Your task to perform on an android device: open app "Move to iOS" (install if not already installed), go to login, and select forgot password Image 0: 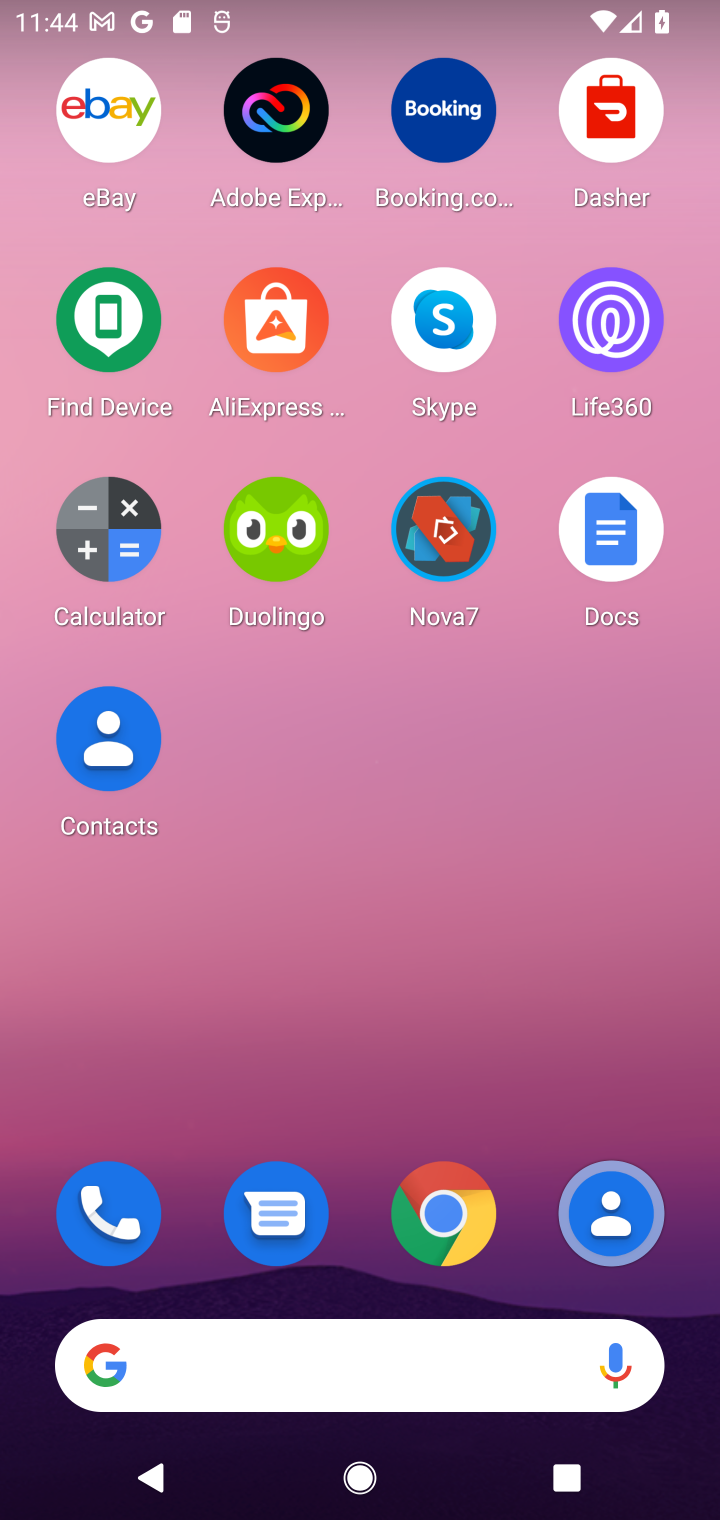
Step 0: press home button
Your task to perform on an android device: open app "Move to iOS" (install if not already installed), go to login, and select forgot password Image 1: 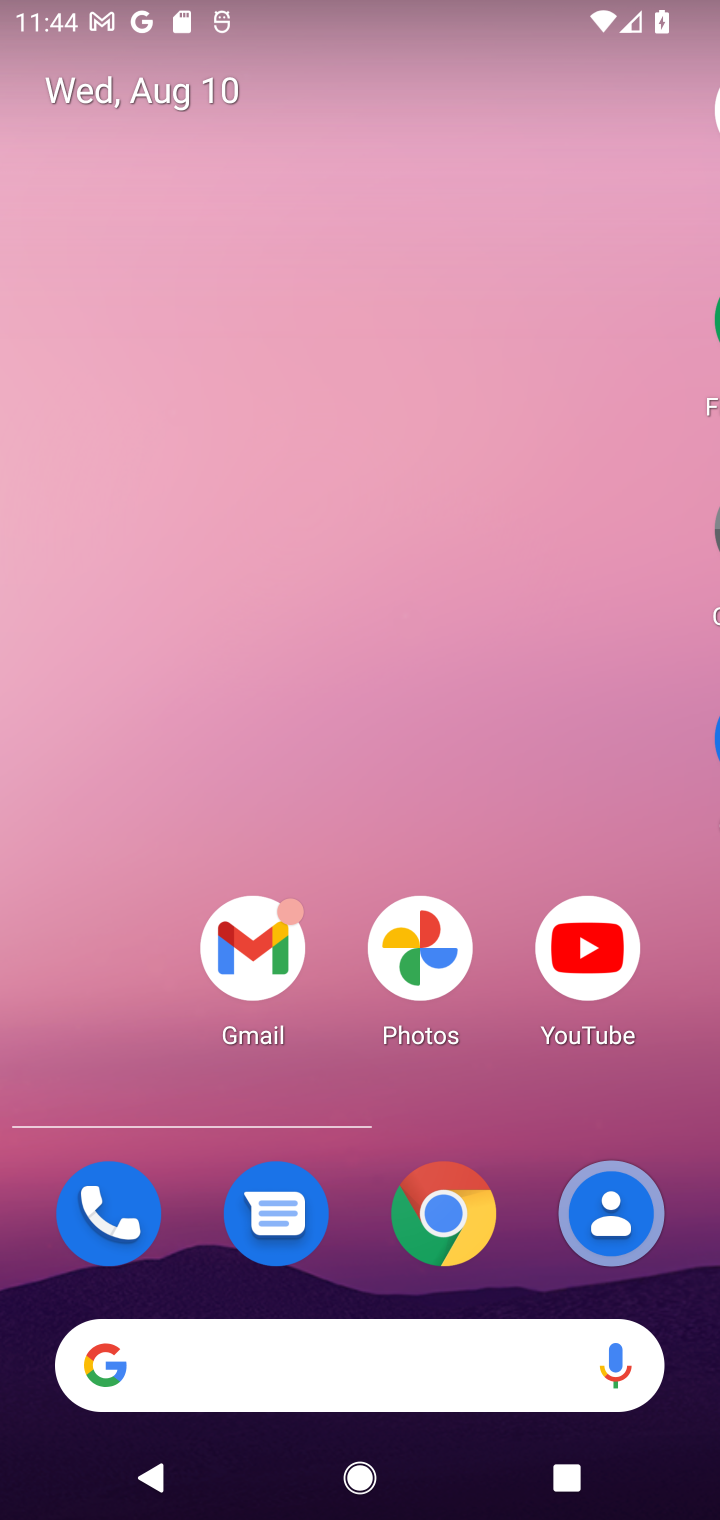
Step 1: drag from (220, 1347) to (359, 144)
Your task to perform on an android device: open app "Move to iOS" (install if not already installed), go to login, and select forgot password Image 2: 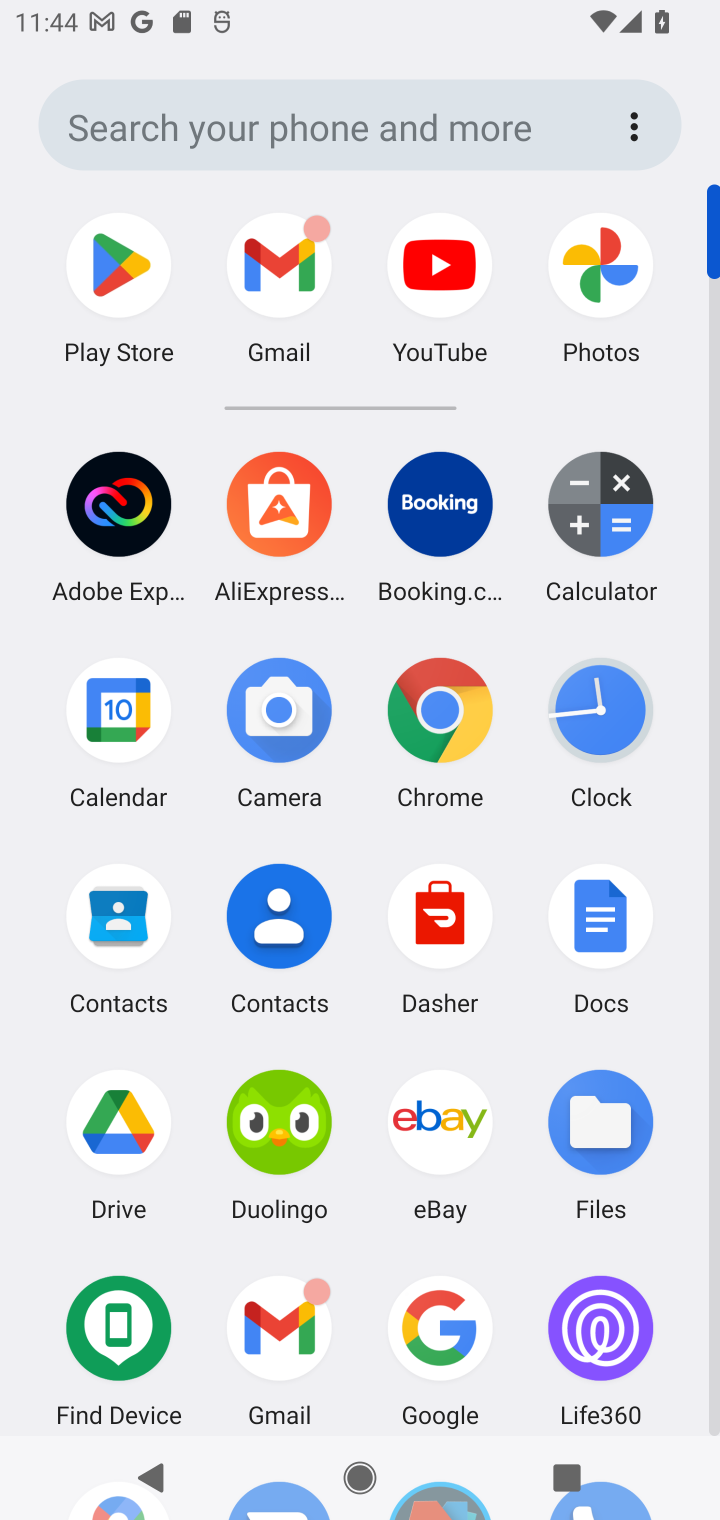
Step 2: click (100, 275)
Your task to perform on an android device: open app "Move to iOS" (install if not already installed), go to login, and select forgot password Image 3: 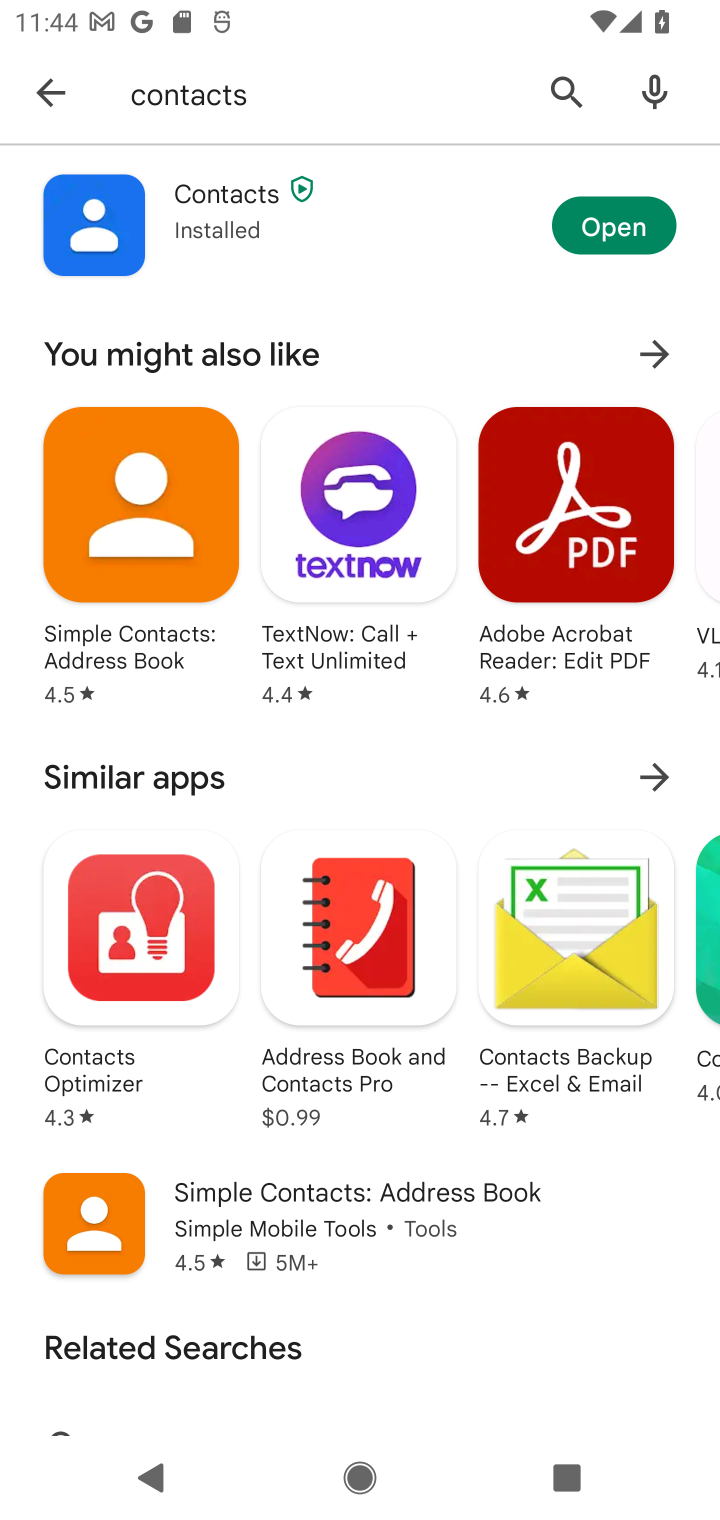
Step 3: press back button
Your task to perform on an android device: open app "Move to iOS" (install if not already installed), go to login, and select forgot password Image 4: 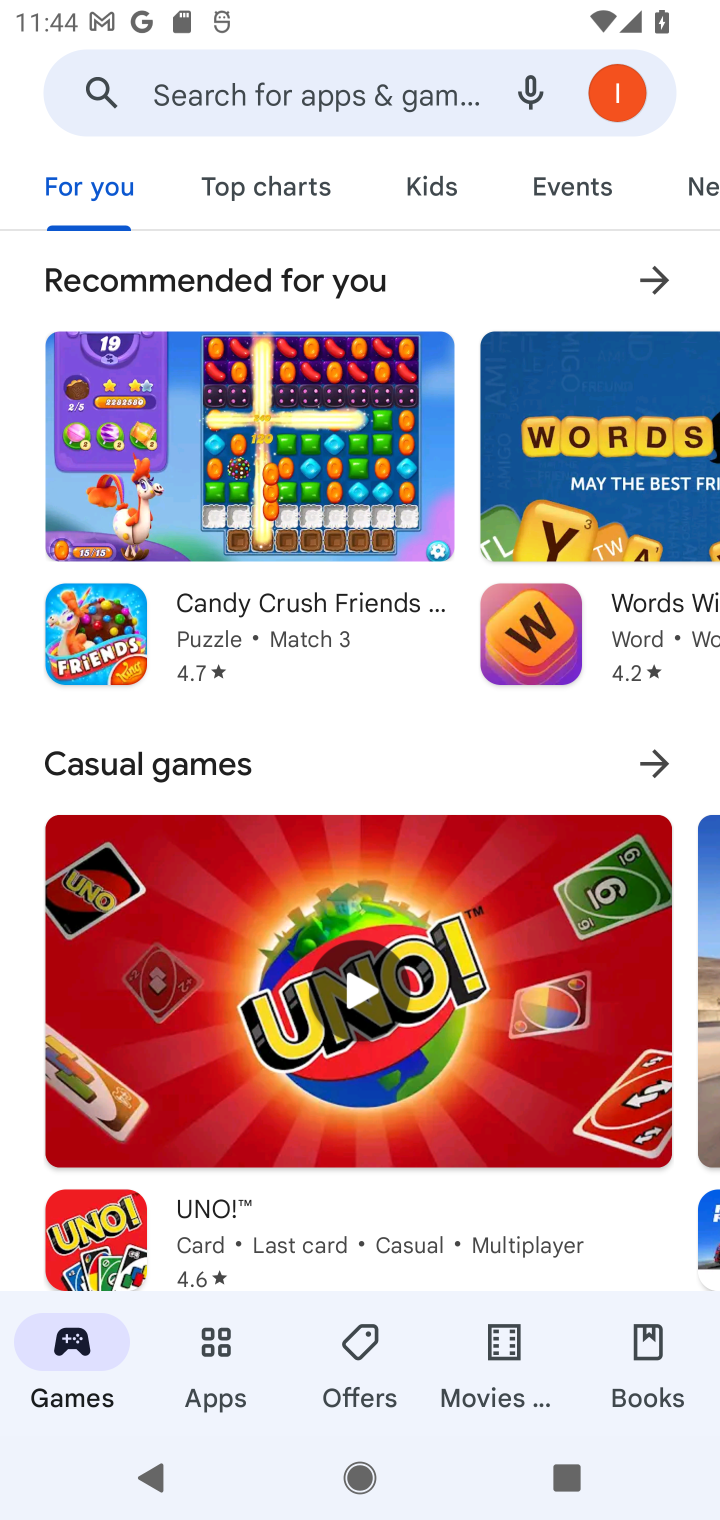
Step 4: click (346, 102)
Your task to perform on an android device: open app "Move to iOS" (install if not already installed), go to login, and select forgot password Image 5: 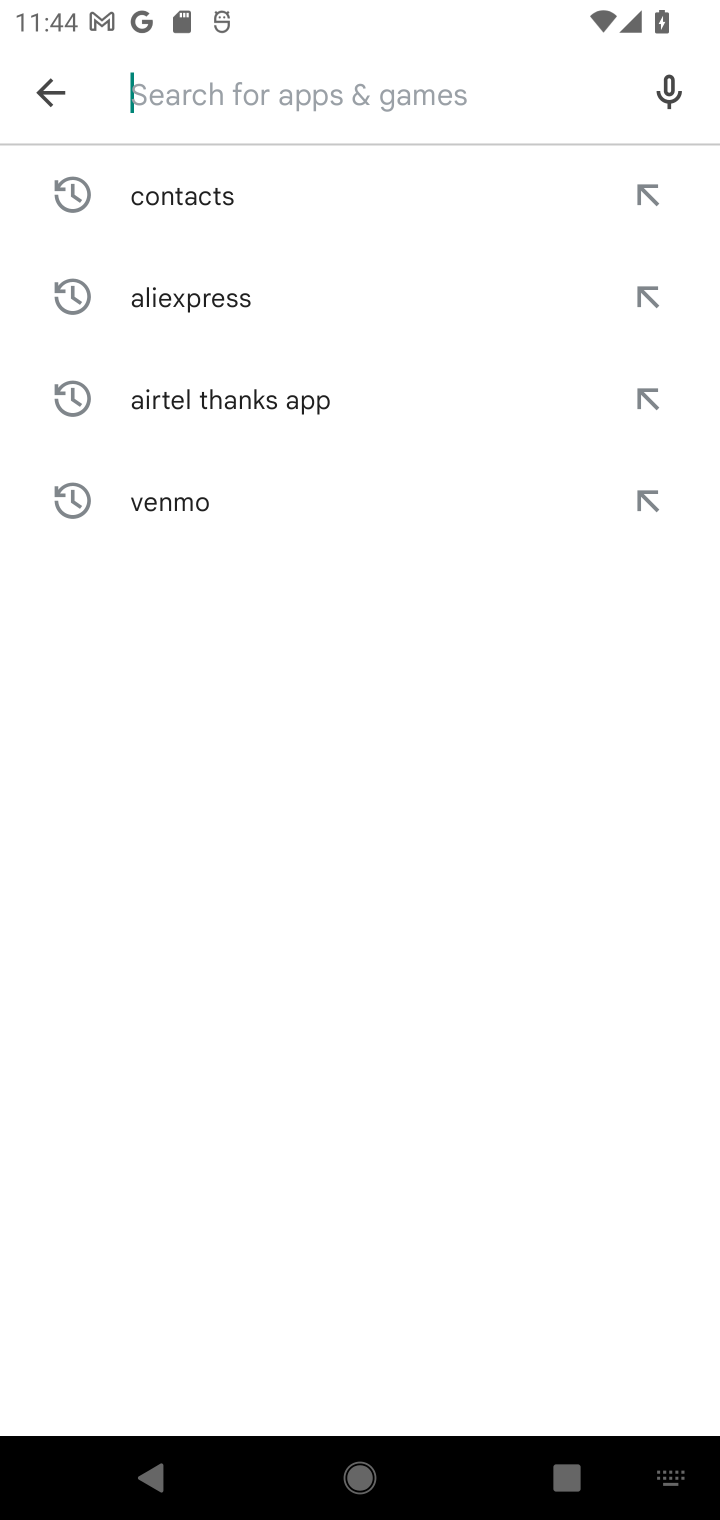
Step 5: type "Move to iOS"
Your task to perform on an android device: open app "Move to iOS" (install if not already installed), go to login, and select forgot password Image 6: 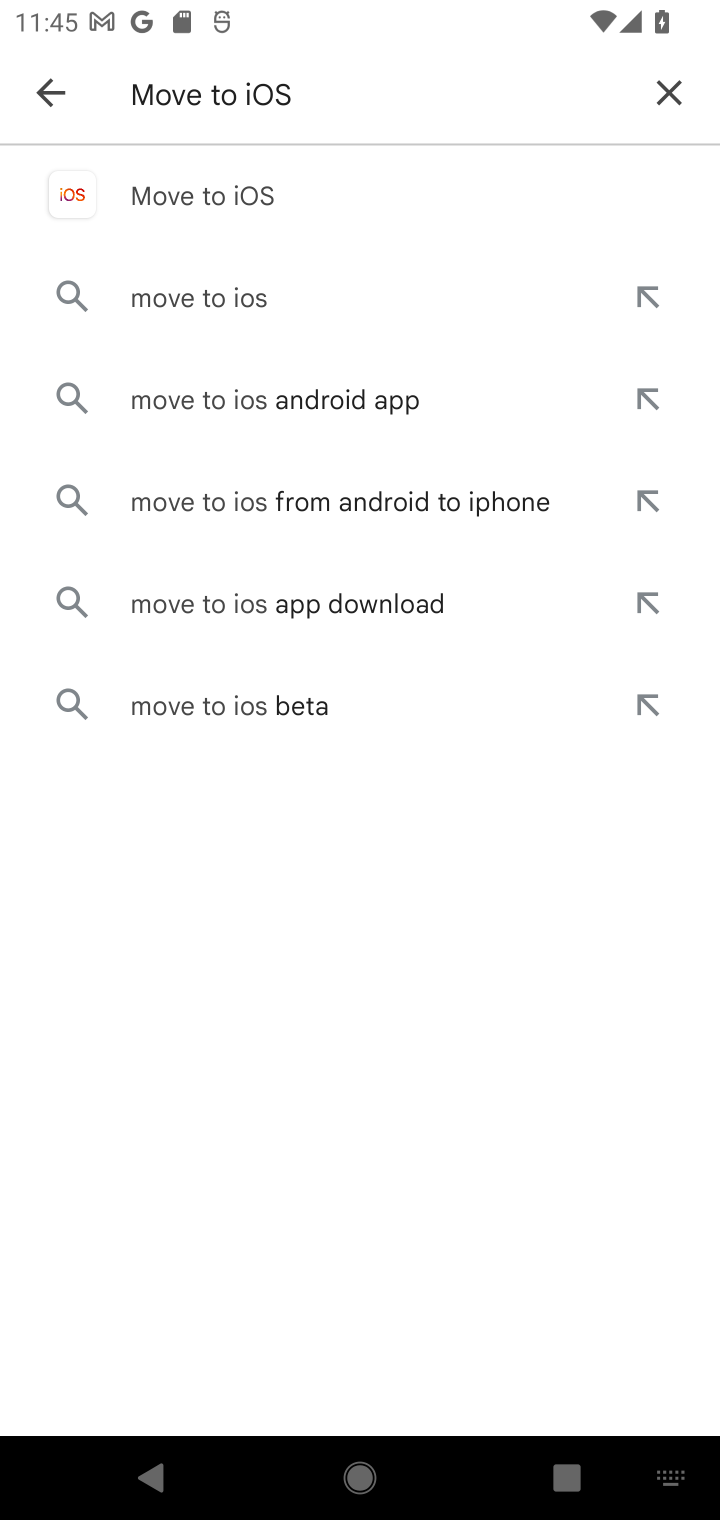
Step 6: click (166, 206)
Your task to perform on an android device: open app "Move to iOS" (install if not already installed), go to login, and select forgot password Image 7: 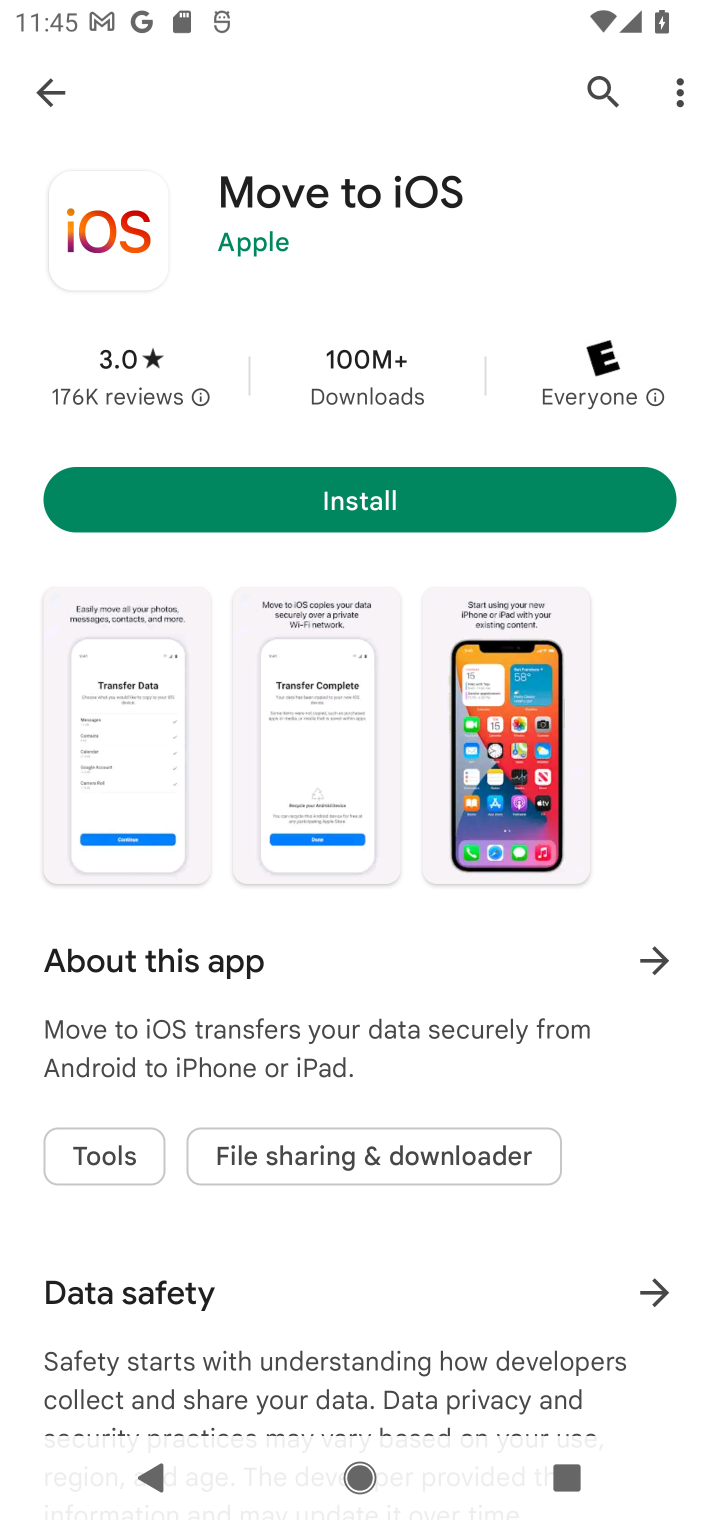
Step 7: click (368, 515)
Your task to perform on an android device: open app "Move to iOS" (install if not already installed), go to login, and select forgot password Image 8: 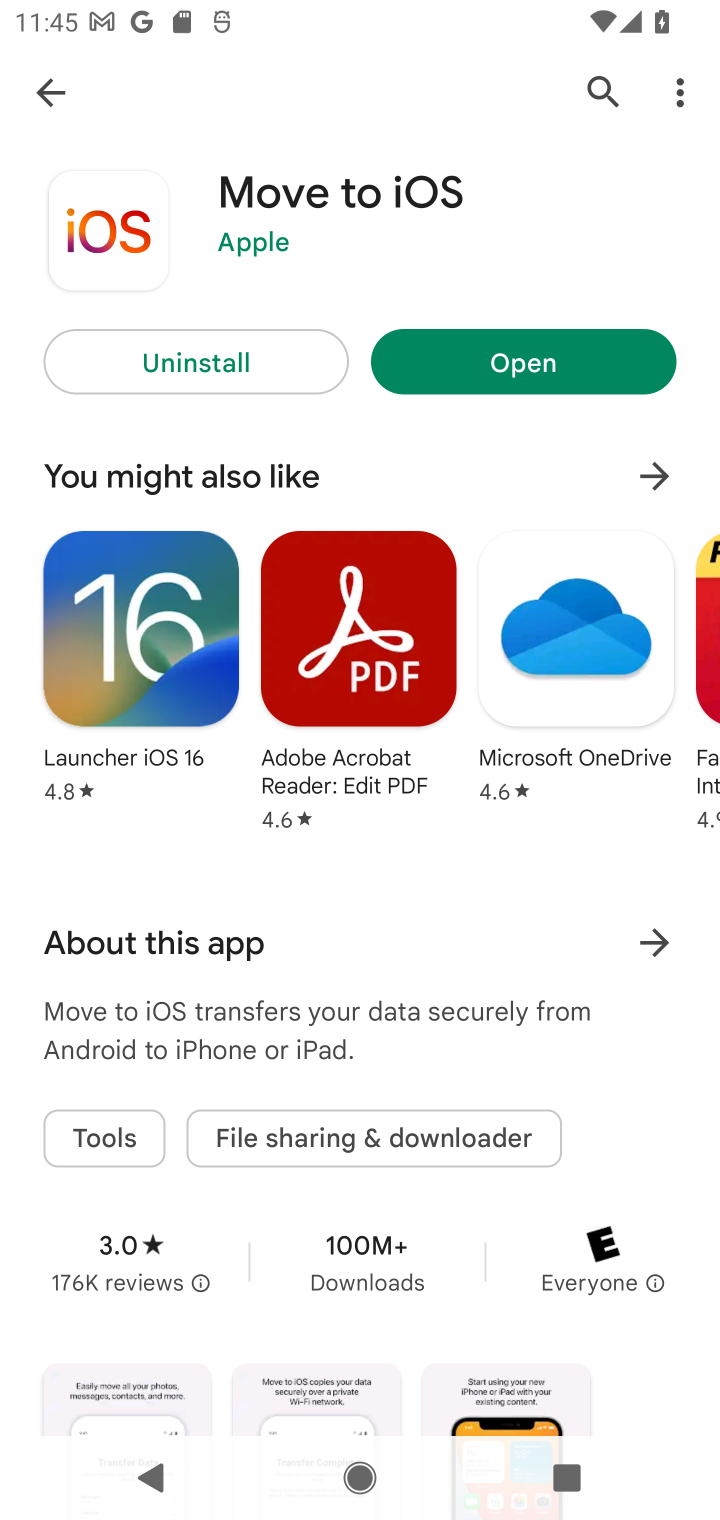
Step 8: click (484, 375)
Your task to perform on an android device: open app "Move to iOS" (install if not already installed), go to login, and select forgot password Image 9: 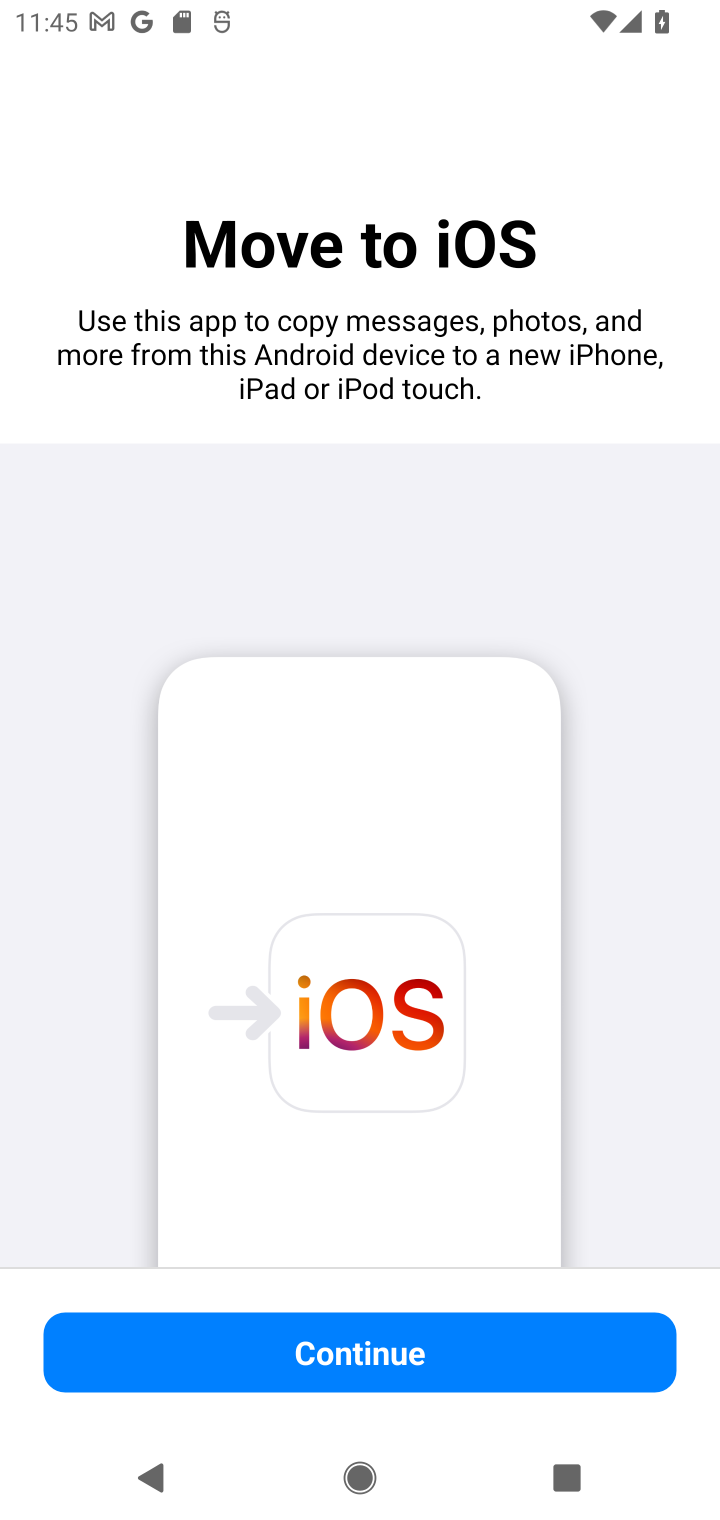
Step 9: click (372, 1365)
Your task to perform on an android device: open app "Move to iOS" (install if not already installed), go to login, and select forgot password Image 10: 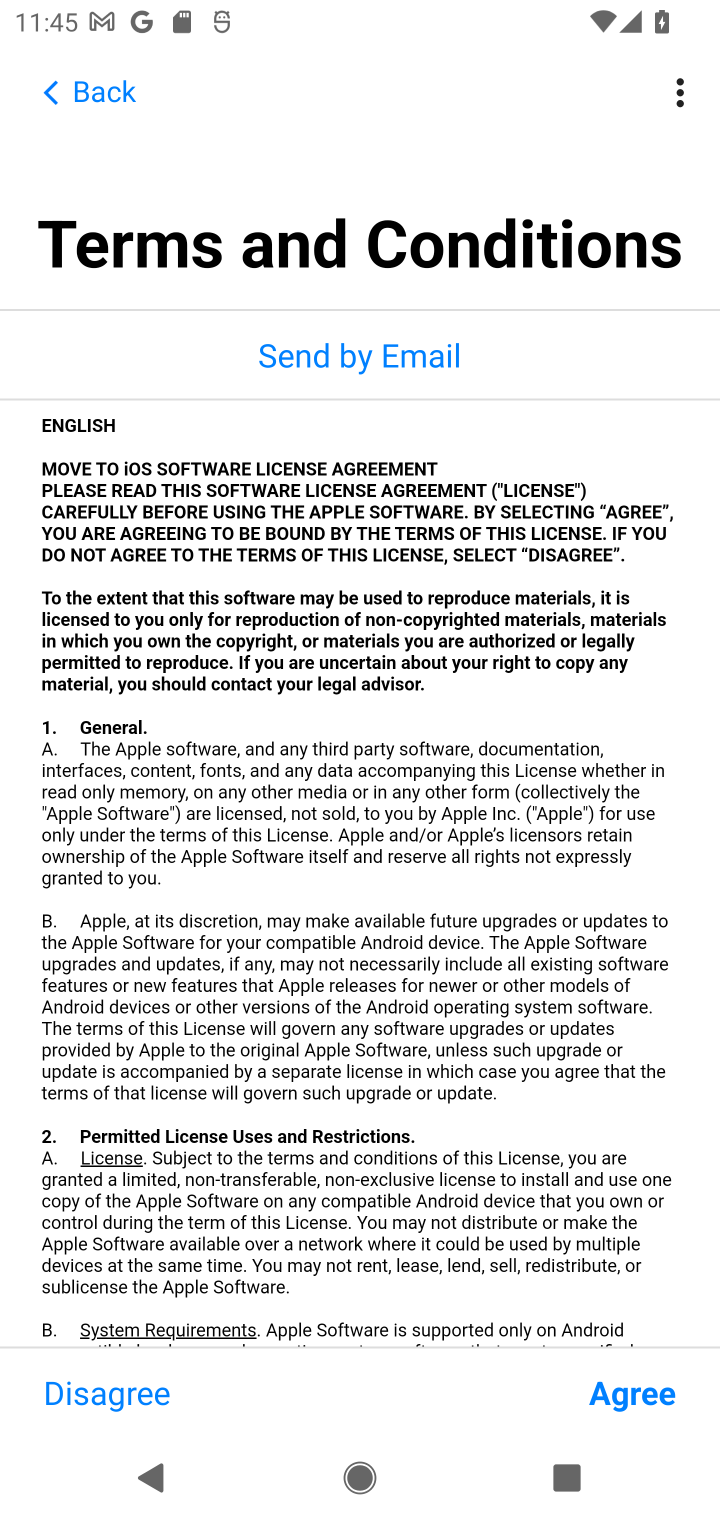
Step 10: click (624, 1390)
Your task to perform on an android device: open app "Move to iOS" (install if not already installed), go to login, and select forgot password Image 11: 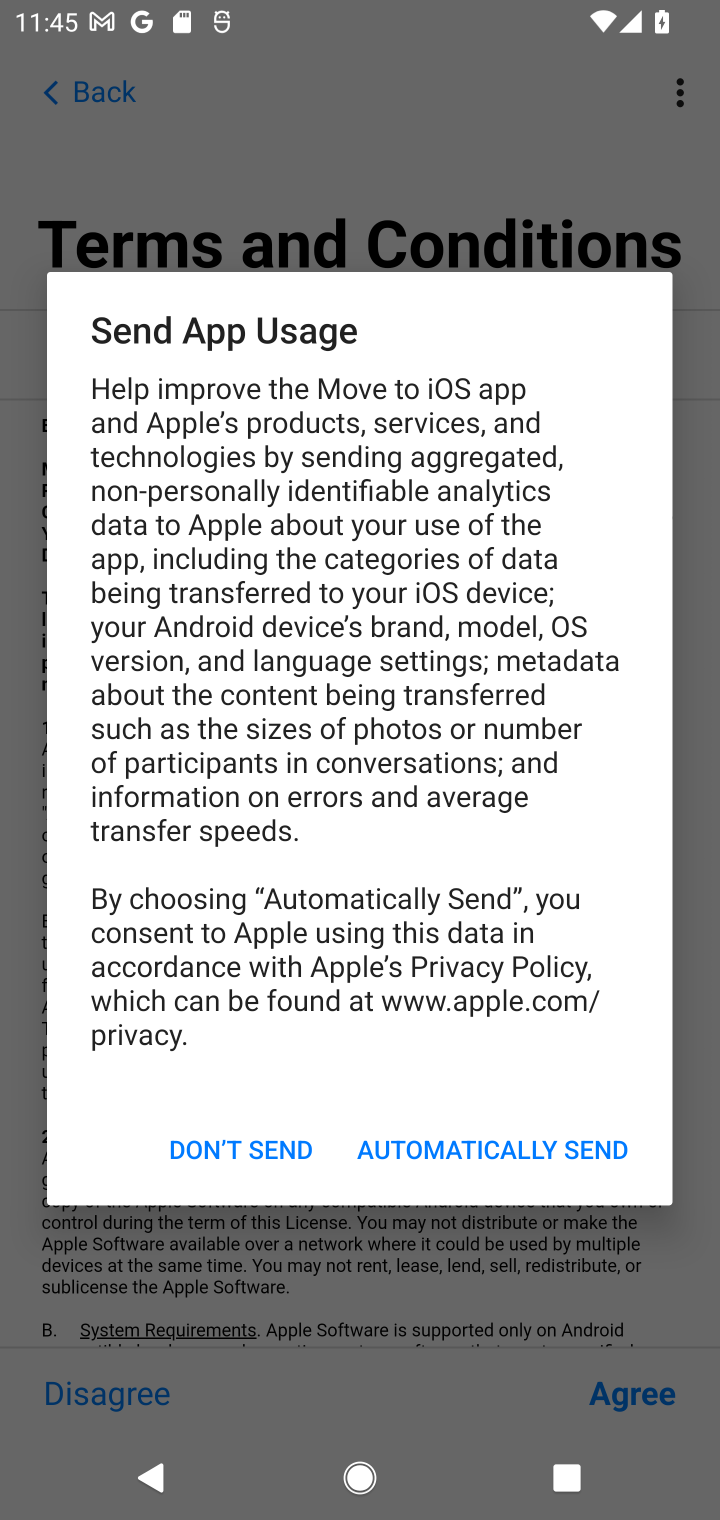
Step 11: click (495, 1158)
Your task to perform on an android device: open app "Move to iOS" (install if not already installed), go to login, and select forgot password Image 12: 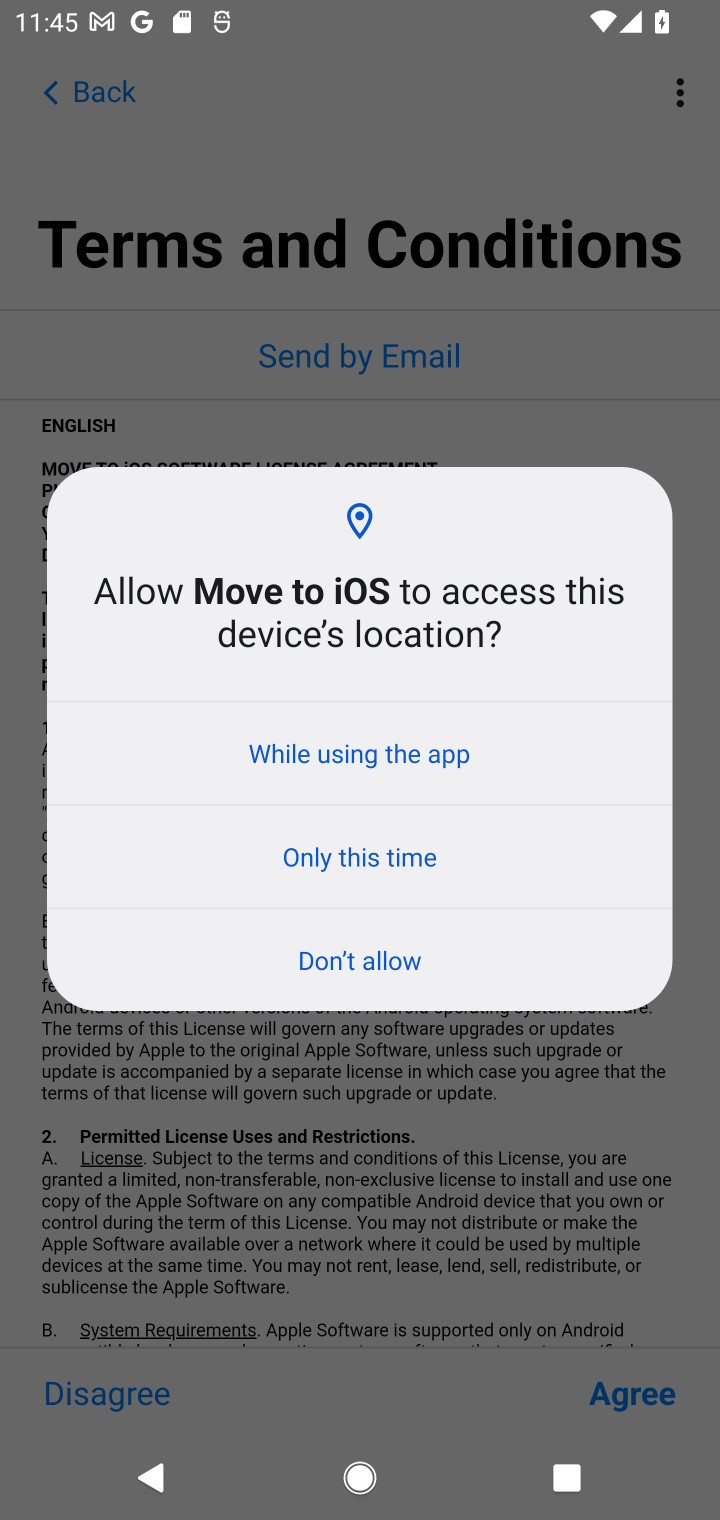
Step 12: click (392, 744)
Your task to perform on an android device: open app "Move to iOS" (install if not already installed), go to login, and select forgot password Image 13: 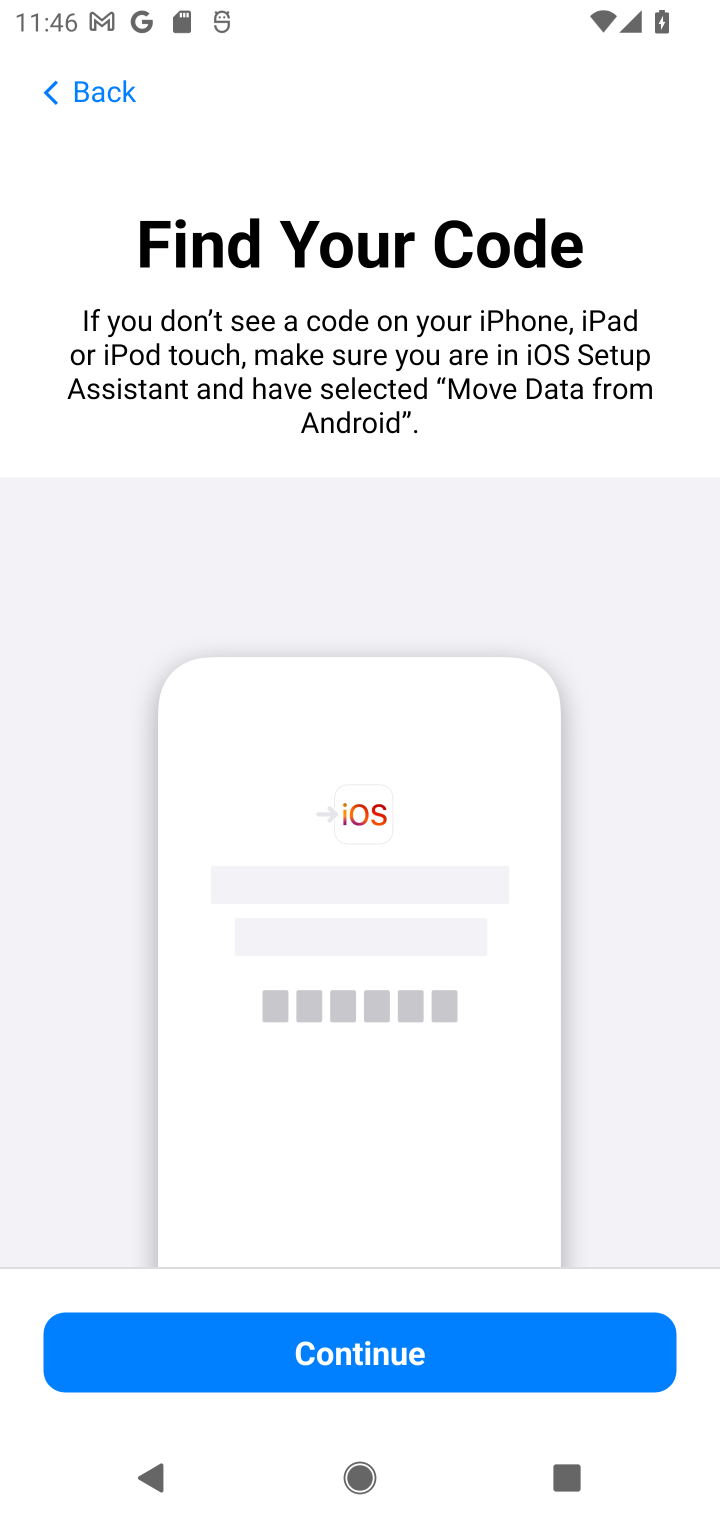
Step 13: click (355, 1351)
Your task to perform on an android device: open app "Move to iOS" (install if not already installed), go to login, and select forgot password Image 14: 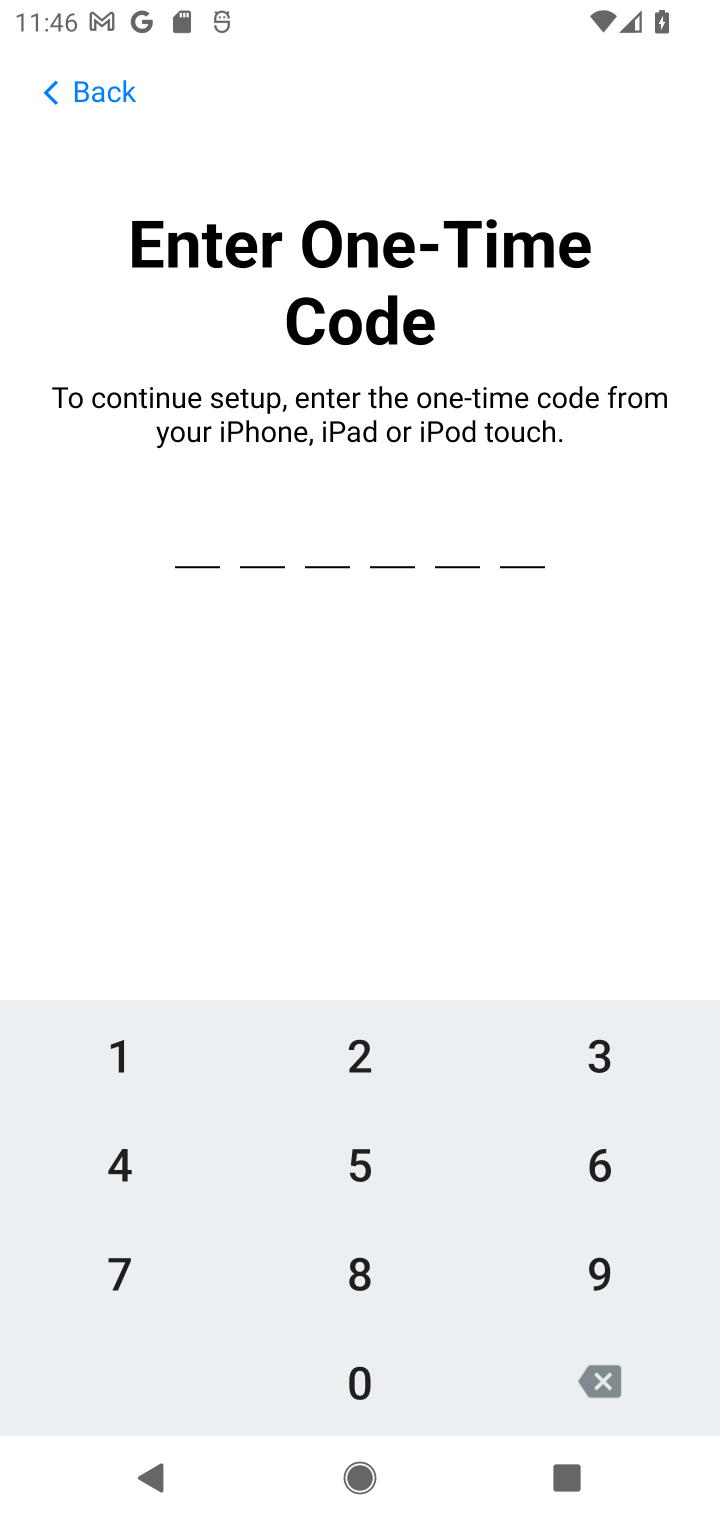
Step 14: type "123456"
Your task to perform on an android device: open app "Move to iOS" (install if not already installed), go to login, and select forgot password Image 15: 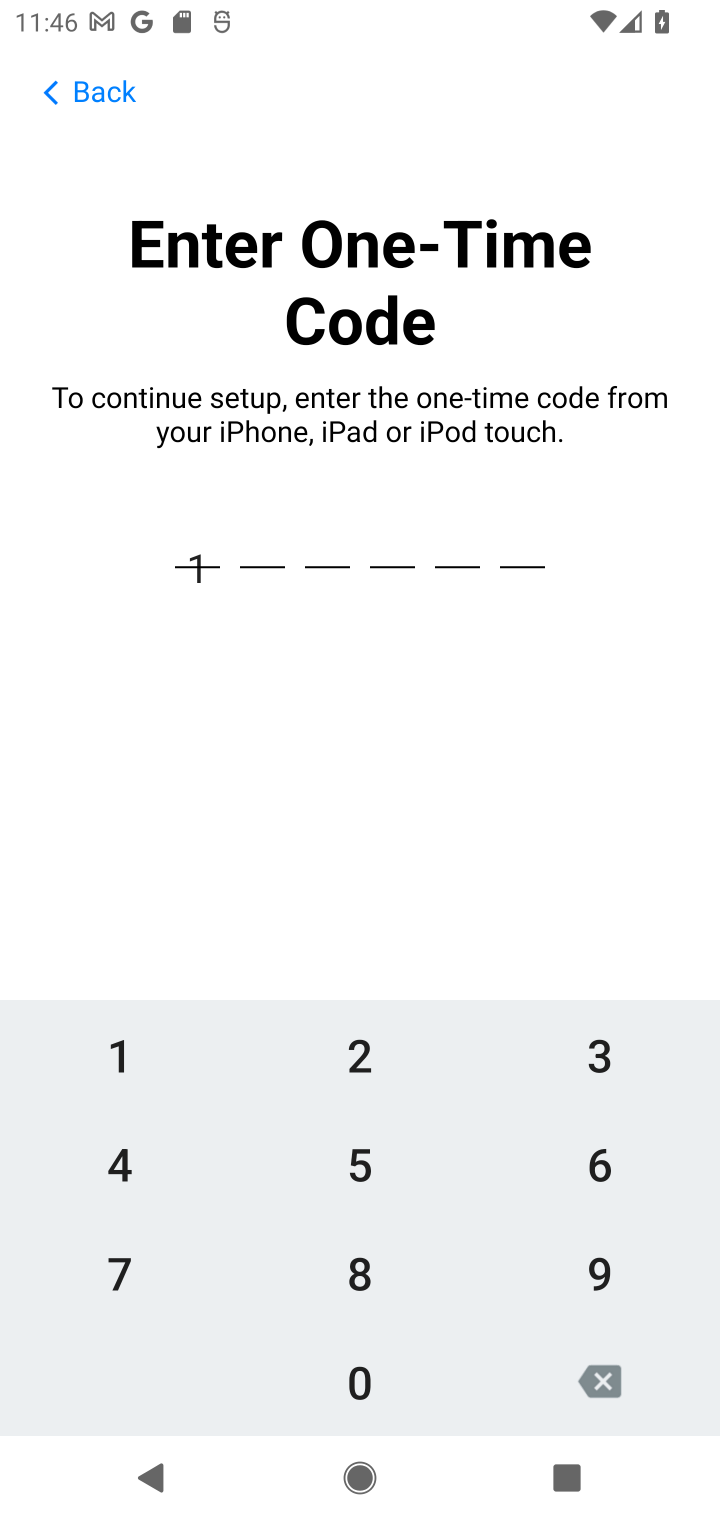
Step 15: type ""
Your task to perform on an android device: open app "Move to iOS" (install if not already installed), go to login, and select forgot password Image 16: 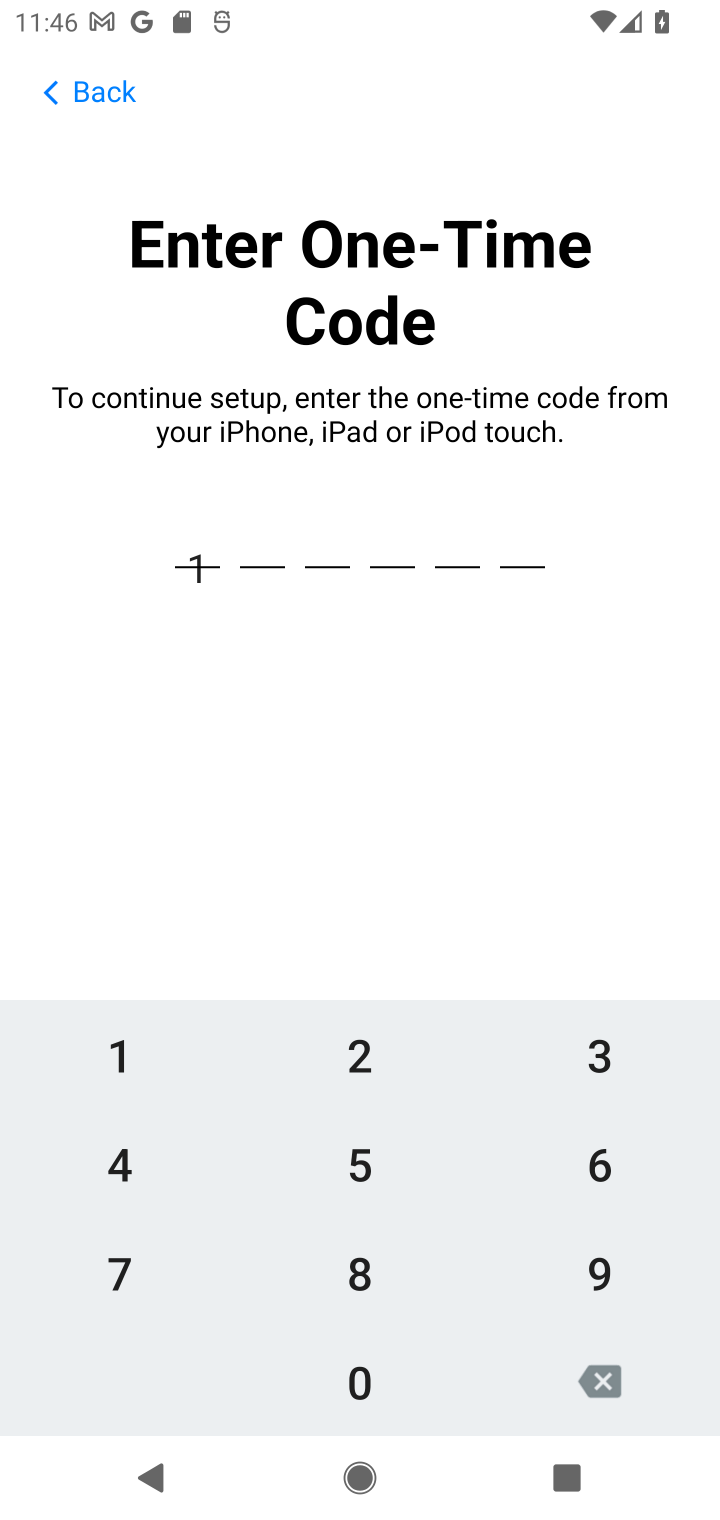
Step 16: click (360, 1046)
Your task to perform on an android device: open app "Move to iOS" (install if not already installed), go to login, and select forgot password Image 17: 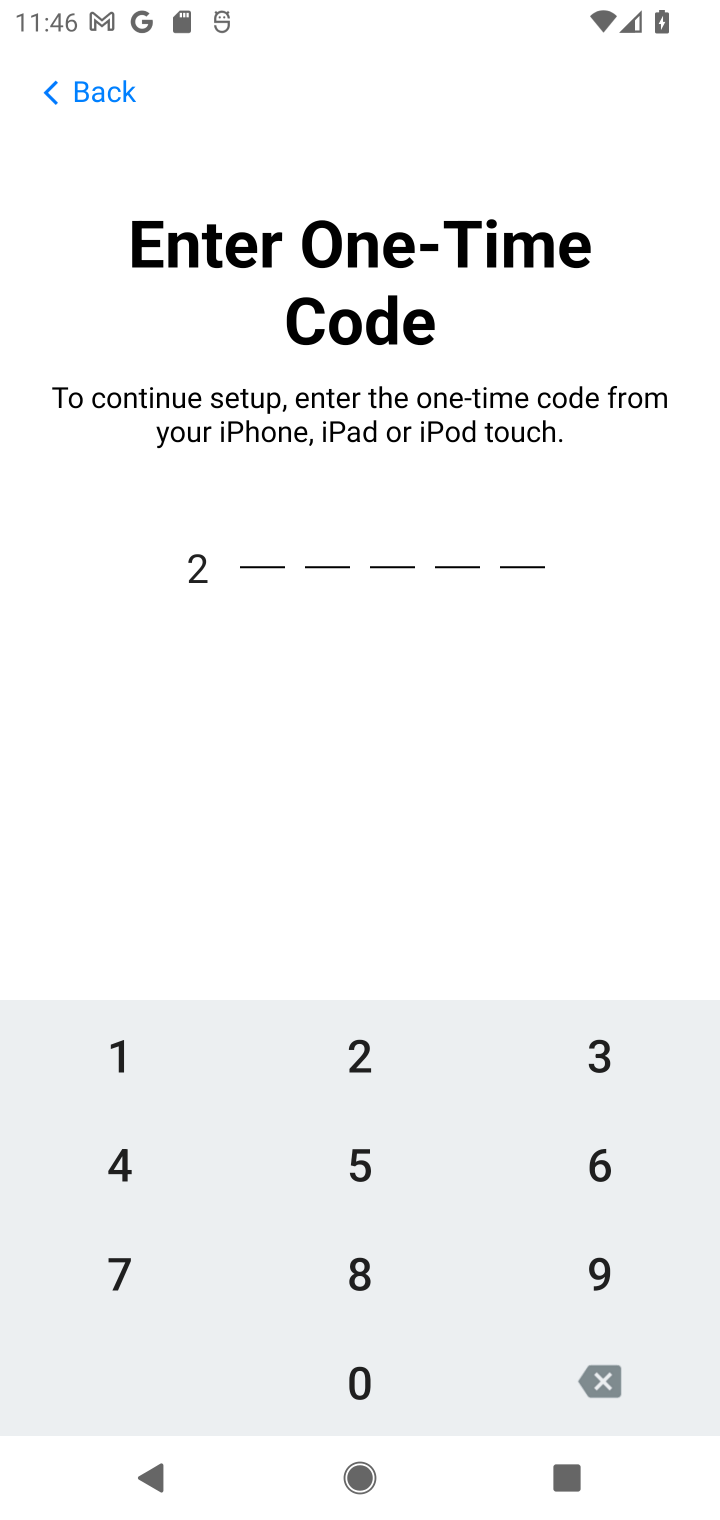
Step 17: click (625, 1049)
Your task to perform on an android device: open app "Move to iOS" (install if not already installed), go to login, and select forgot password Image 18: 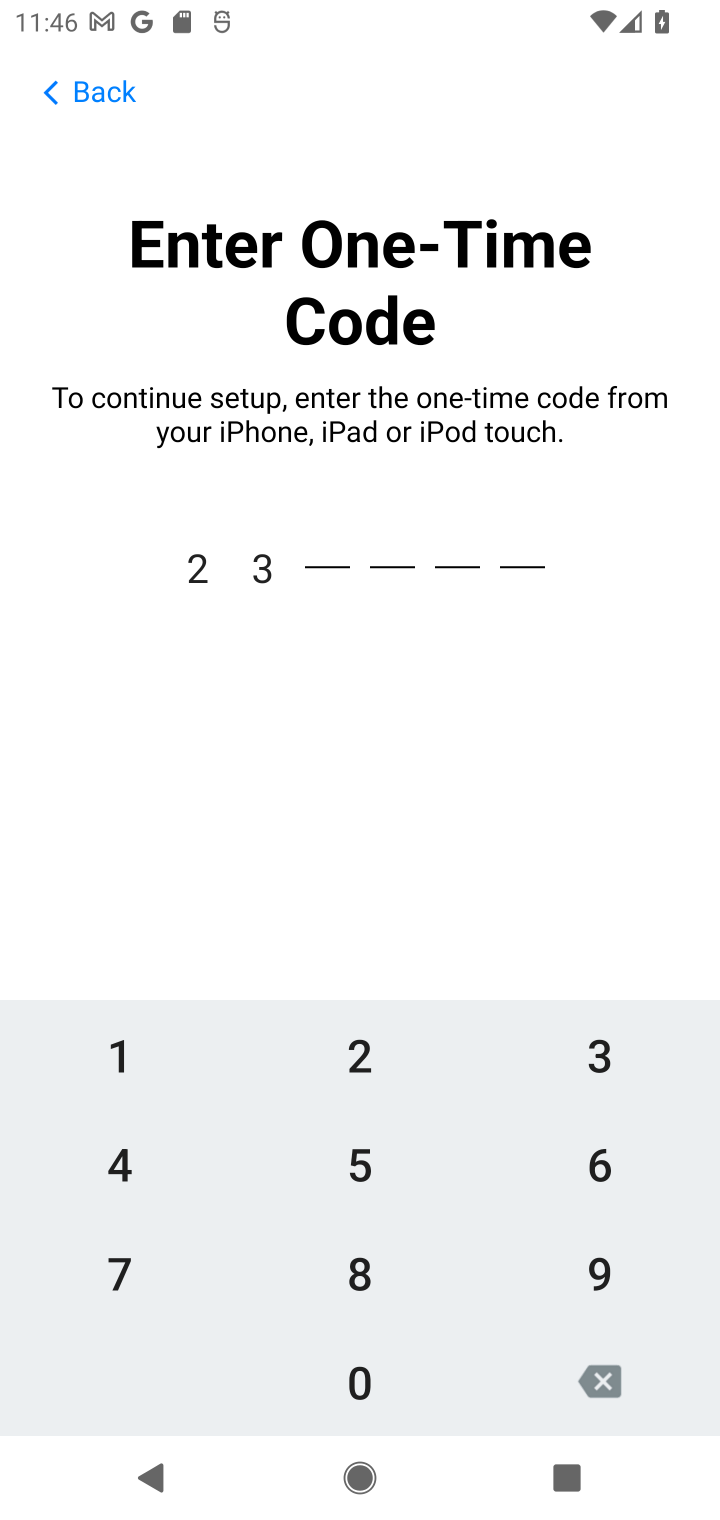
Step 18: click (362, 1077)
Your task to perform on an android device: open app "Move to iOS" (install if not already installed), go to login, and select forgot password Image 19: 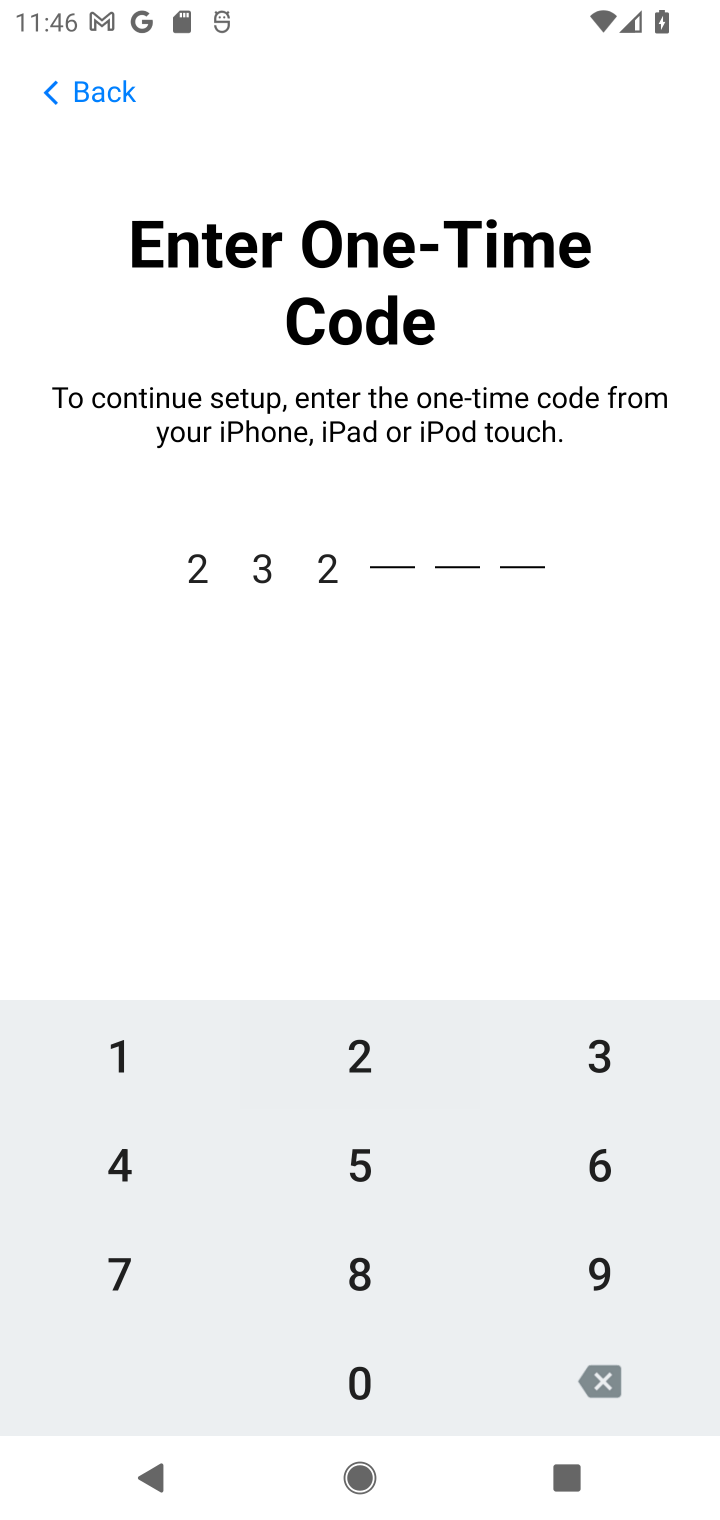
Step 19: click (349, 1184)
Your task to perform on an android device: open app "Move to iOS" (install if not already installed), go to login, and select forgot password Image 20: 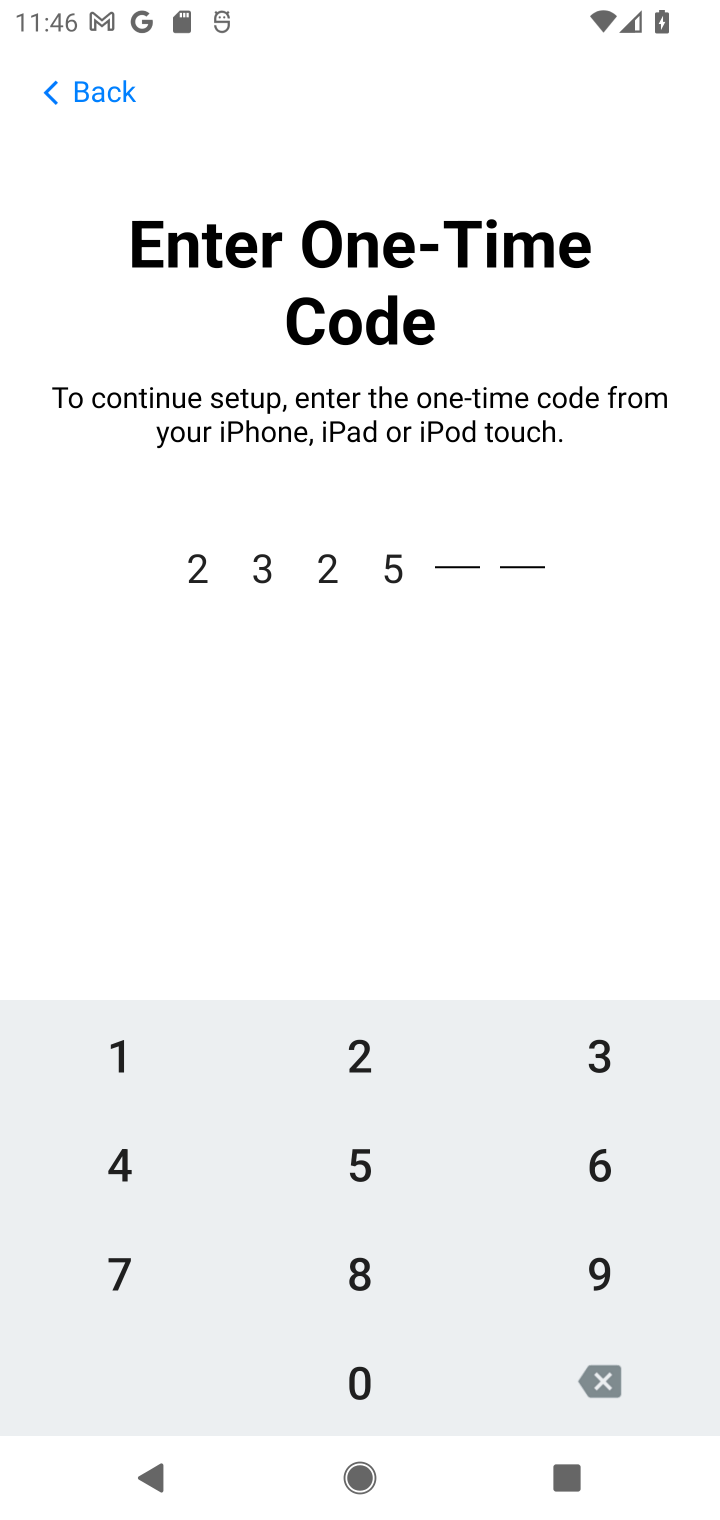
Step 20: click (596, 1144)
Your task to perform on an android device: open app "Move to iOS" (install if not already installed), go to login, and select forgot password Image 21: 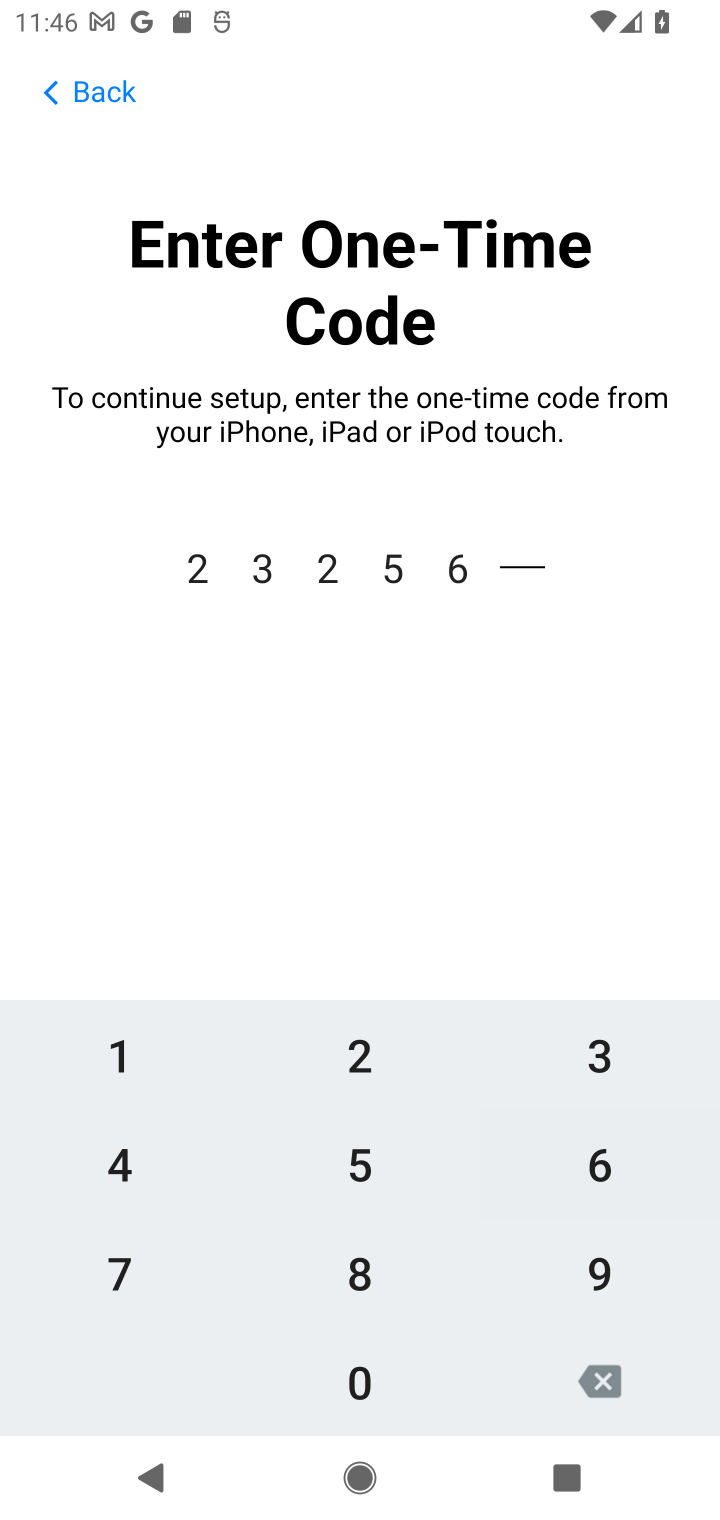
Step 21: click (118, 1074)
Your task to perform on an android device: open app "Move to iOS" (install if not already installed), go to login, and select forgot password Image 22: 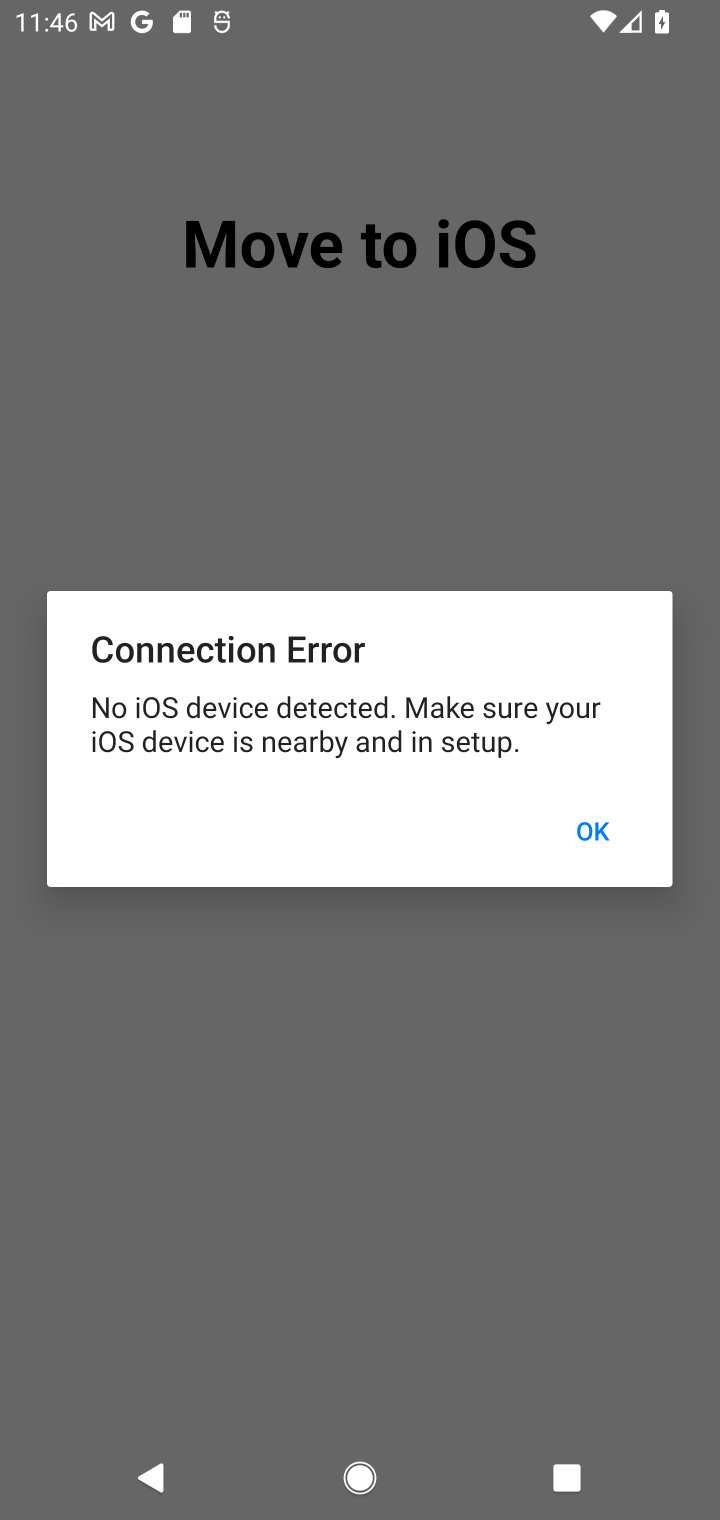
Step 22: click (621, 822)
Your task to perform on an android device: open app "Move to iOS" (install if not already installed), go to login, and select forgot password Image 23: 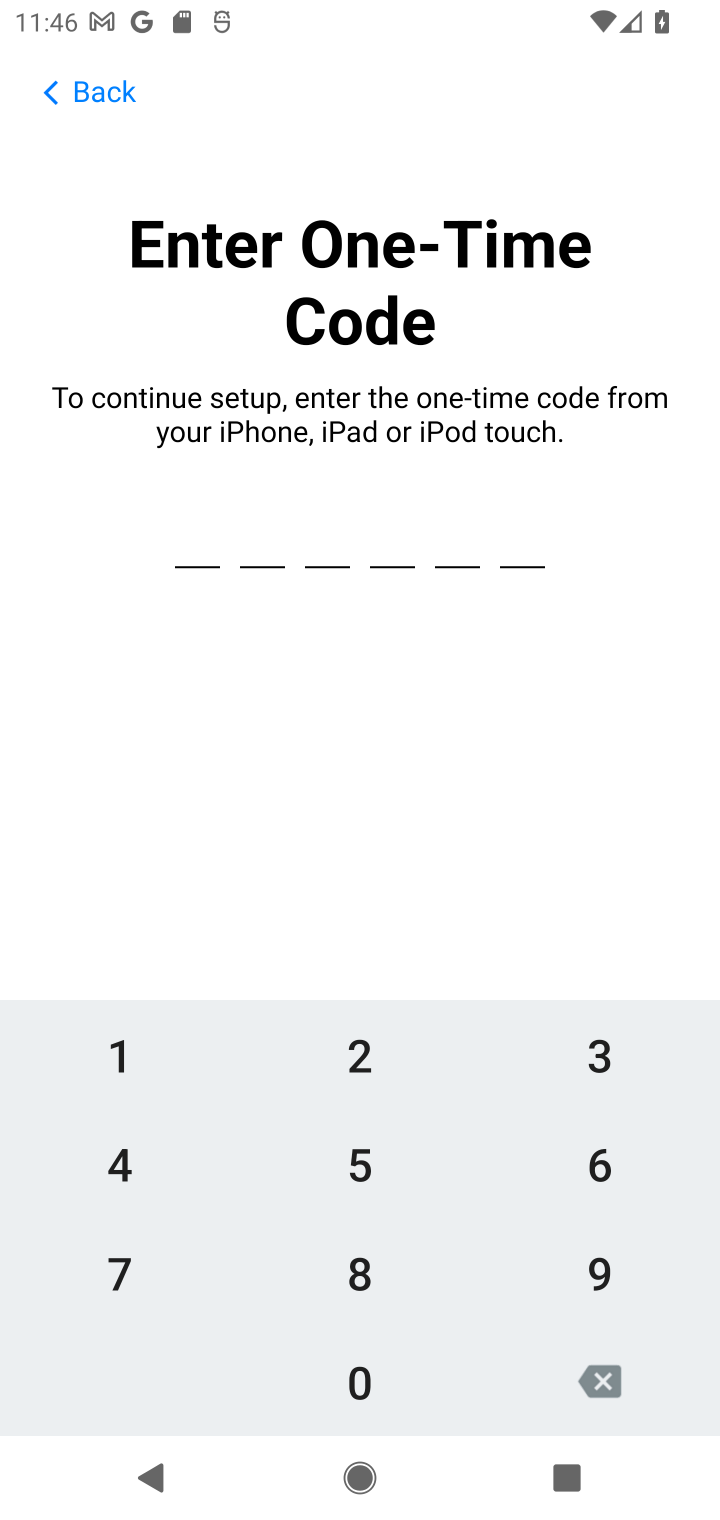
Step 23: task complete